Your task to perform on an android device: toggle sleep mode Image 0: 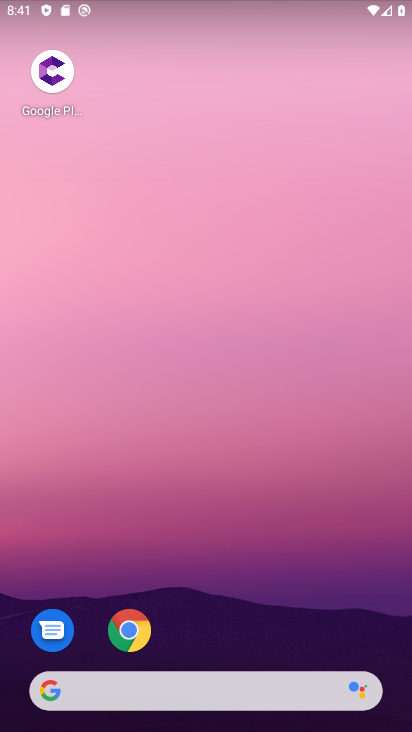
Step 0: drag from (359, 622) to (356, 196)
Your task to perform on an android device: toggle sleep mode Image 1: 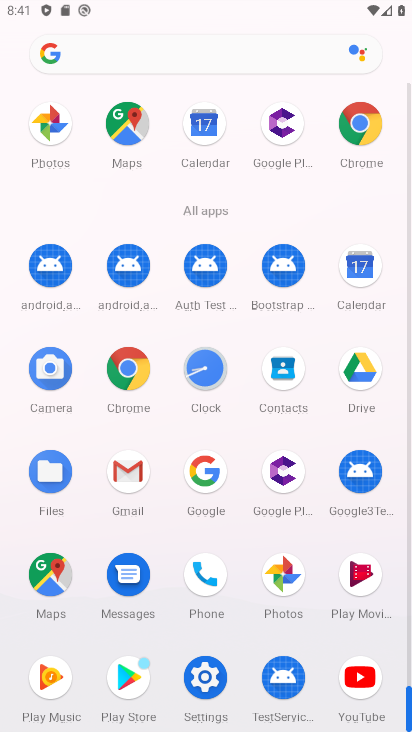
Step 1: click (218, 690)
Your task to perform on an android device: toggle sleep mode Image 2: 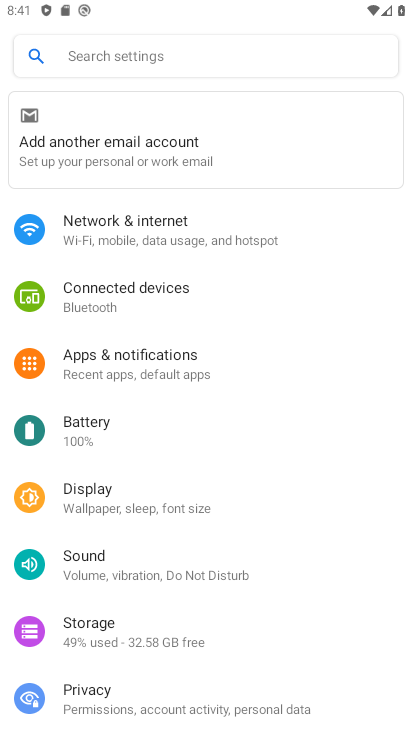
Step 2: drag from (346, 620) to (343, 445)
Your task to perform on an android device: toggle sleep mode Image 3: 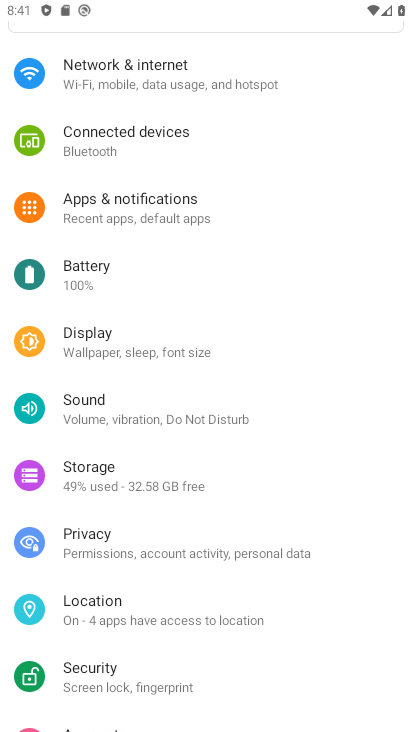
Step 3: drag from (353, 655) to (374, 482)
Your task to perform on an android device: toggle sleep mode Image 4: 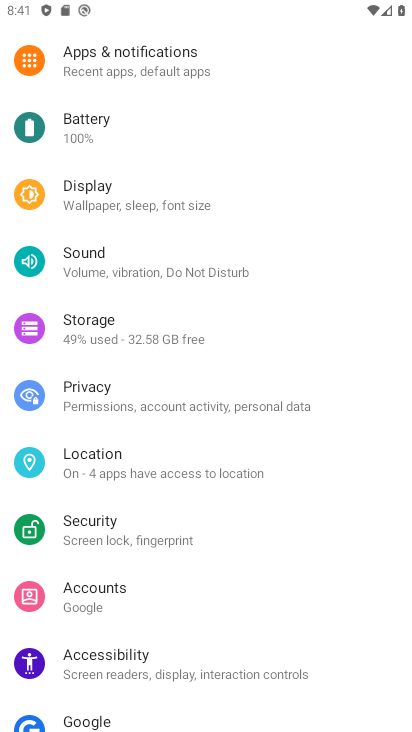
Step 4: drag from (363, 614) to (370, 472)
Your task to perform on an android device: toggle sleep mode Image 5: 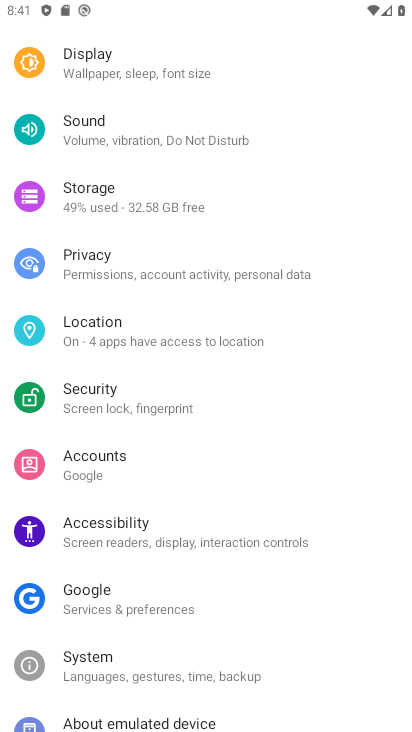
Step 5: drag from (357, 654) to (351, 471)
Your task to perform on an android device: toggle sleep mode Image 6: 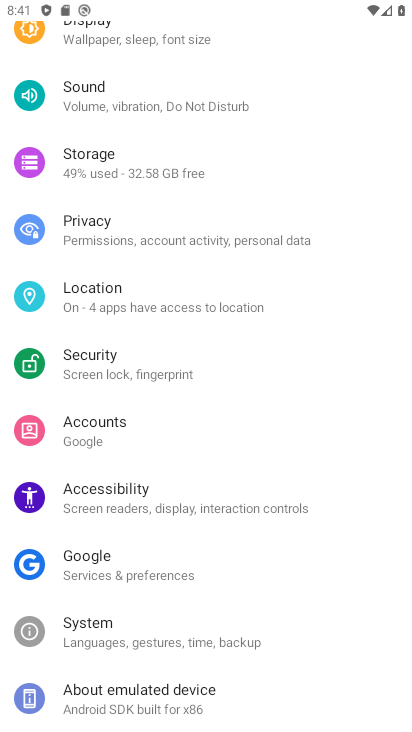
Step 6: drag from (367, 377) to (367, 503)
Your task to perform on an android device: toggle sleep mode Image 7: 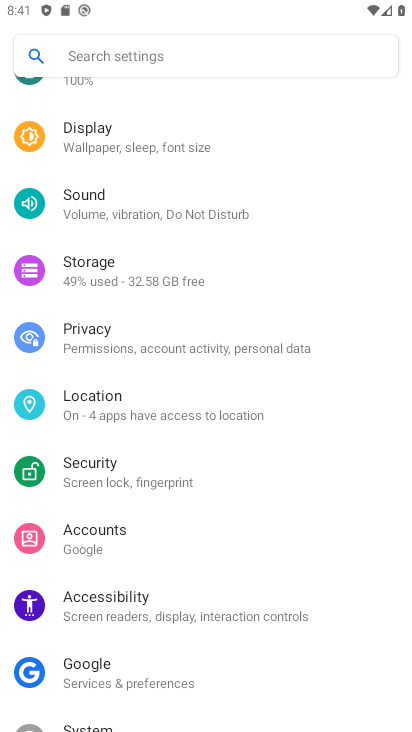
Step 7: drag from (361, 311) to (350, 454)
Your task to perform on an android device: toggle sleep mode Image 8: 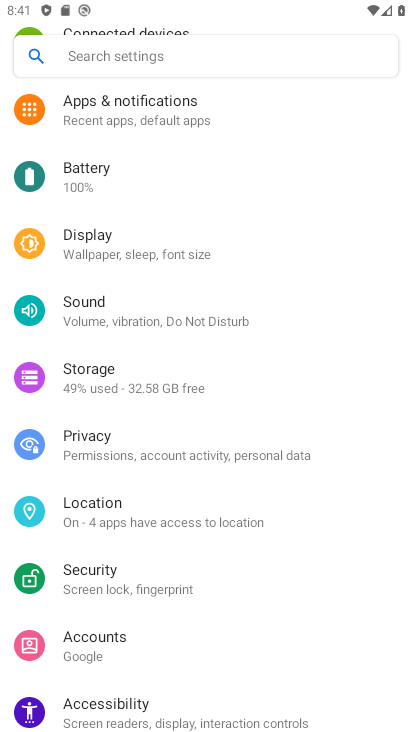
Step 8: drag from (355, 310) to (349, 438)
Your task to perform on an android device: toggle sleep mode Image 9: 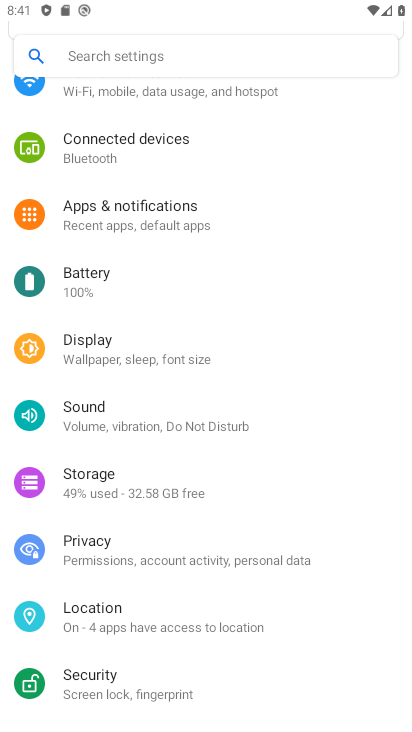
Step 9: drag from (358, 287) to (349, 410)
Your task to perform on an android device: toggle sleep mode Image 10: 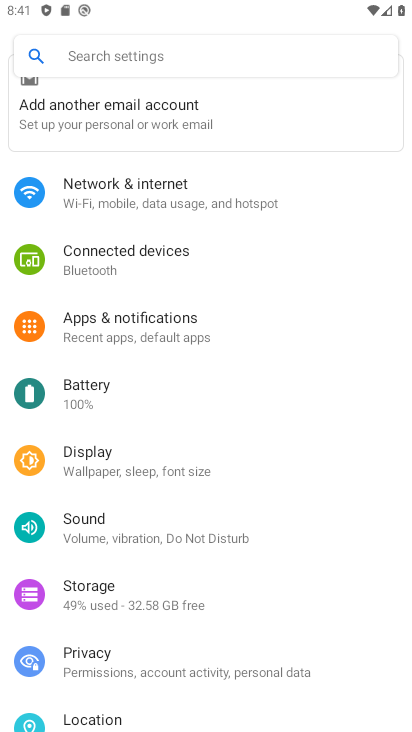
Step 10: drag from (356, 288) to (363, 381)
Your task to perform on an android device: toggle sleep mode Image 11: 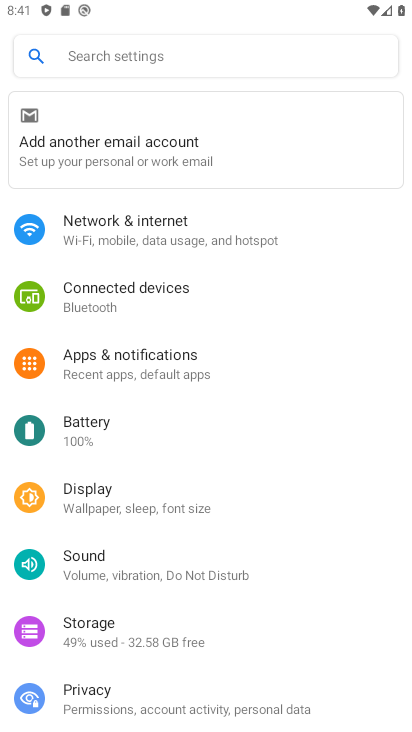
Step 11: click (210, 509)
Your task to perform on an android device: toggle sleep mode Image 12: 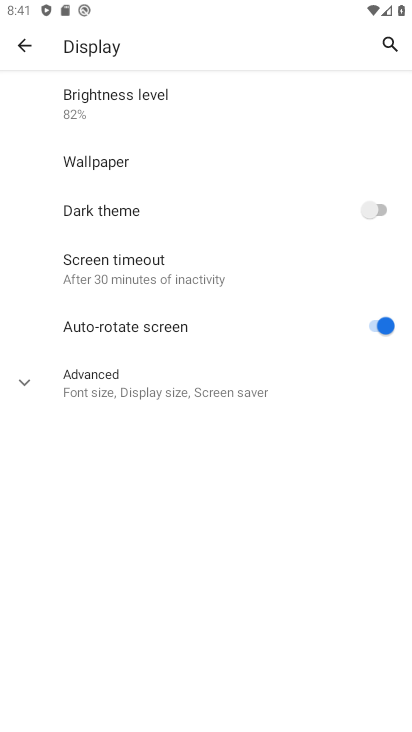
Step 12: click (227, 394)
Your task to perform on an android device: toggle sleep mode Image 13: 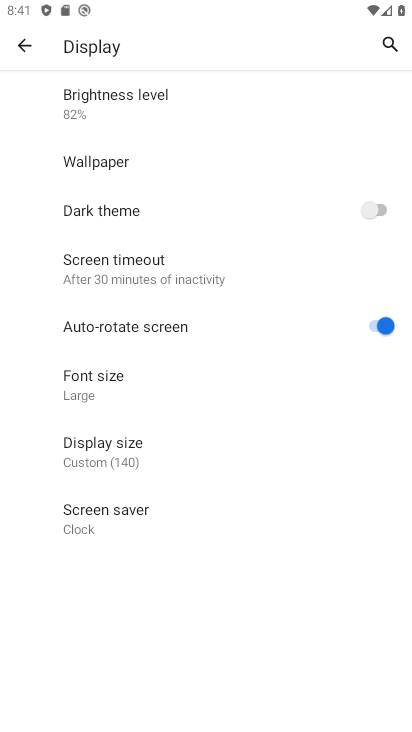
Step 13: task complete